Your task to perform on an android device: Show me productivity apps on the Play Store Image 0: 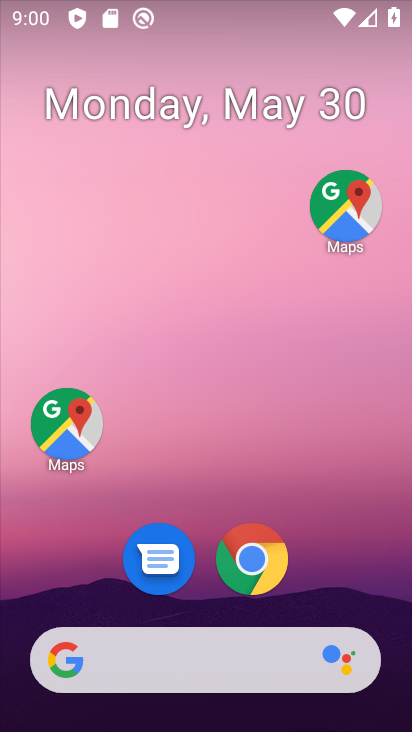
Step 0: drag from (357, 504) to (243, 119)
Your task to perform on an android device: Show me productivity apps on the Play Store Image 1: 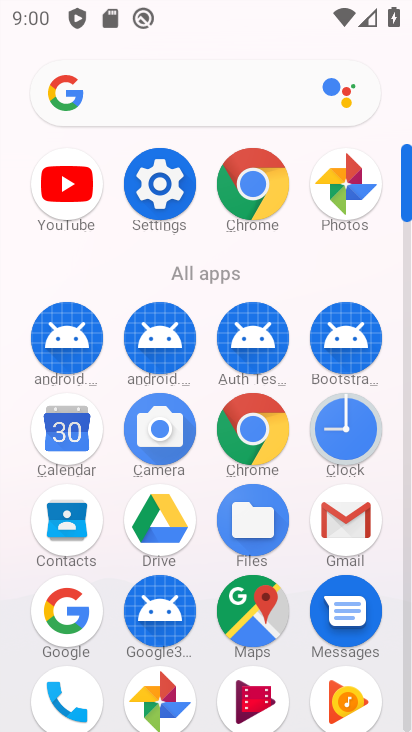
Step 1: drag from (302, 534) to (307, 136)
Your task to perform on an android device: Show me productivity apps on the Play Store Image 2: 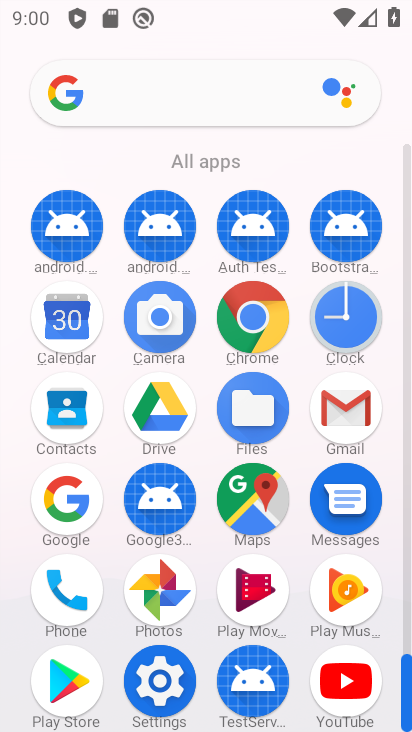
Step 2: click (57, 677)
Your task to perform on an android device: Show me productivity apps on the Play Store Image 3: 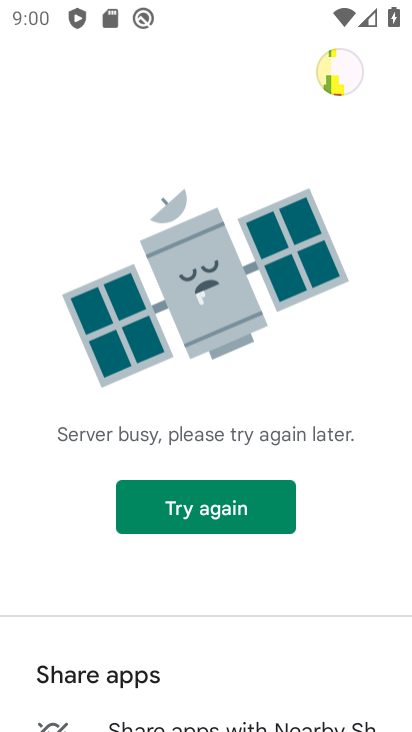
Step 3: click (243, 509)
Your task to perform on an android device: Show me productivity apps on the Play Store Image 4: 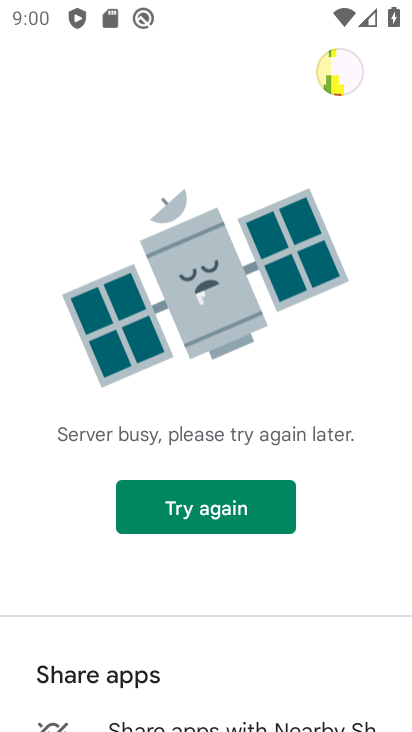
Step 4: task complete